Your task to perform on an android device: toggle translation in the chrome app Image 0: 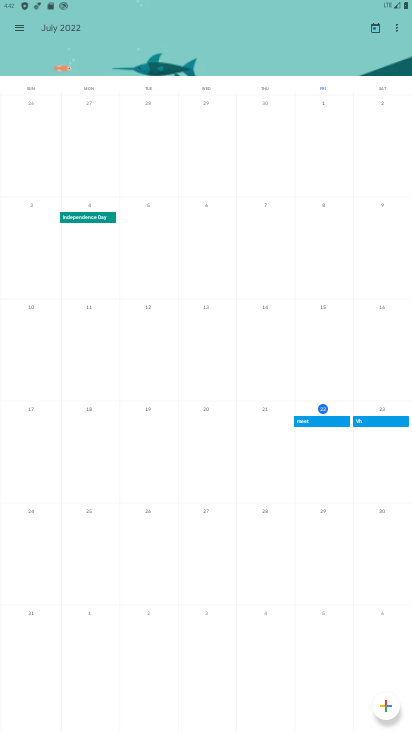
Step 0: press home button
Your task to perform on an android device: toggle translation in the chrome app Image 1: 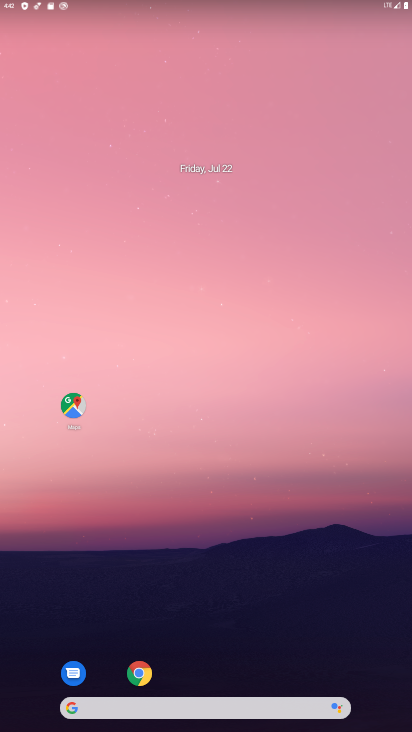
Step 1: click (146, 669)
Your task to perform on an android device: toggle translation in the chrome app Image 2: 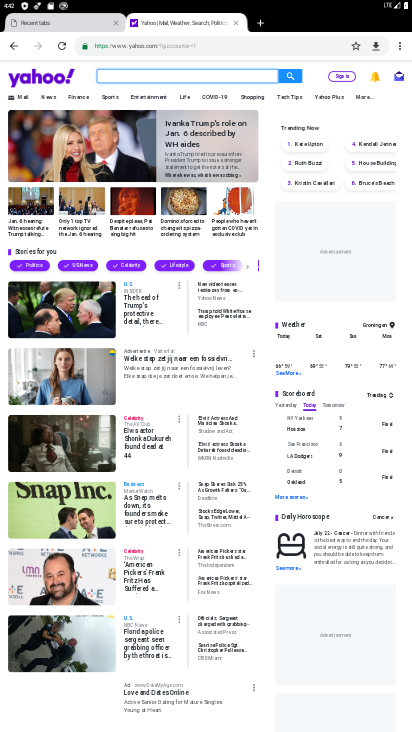
Step 2: drag from (410, 39) to (293, 308)
Your task to perform on an android device: toggle translation in the chrome app Image 3: 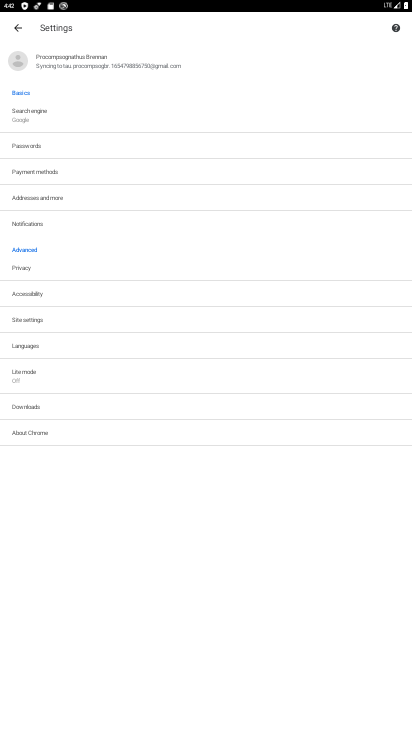
Step 3: click (28, 347)
Your task to perform on an android device: toggle translation in the chrome app Image 4: 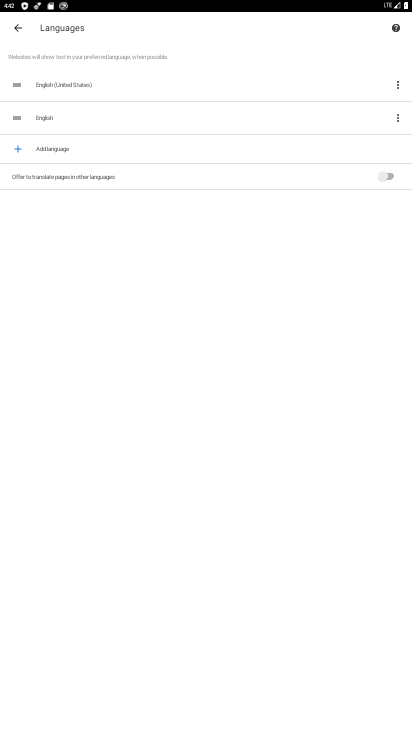
Step 4: click (390, 171)
Your task to perform on an android device: toggle translation in the chrome app Image 5: 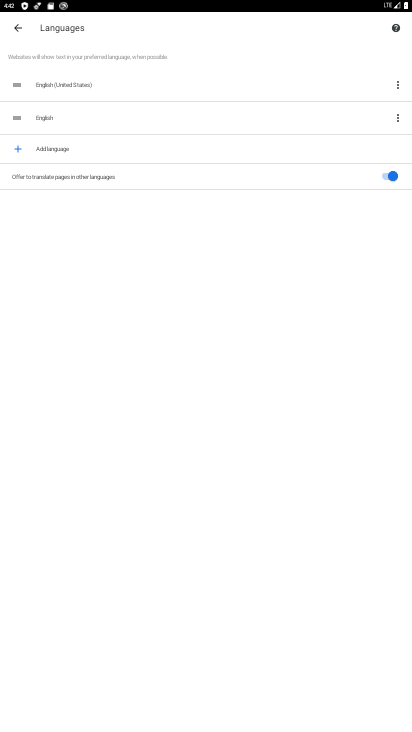
Step 5: task complete